Your task to perform on an android device: toggle improve location accuracy Image 0: 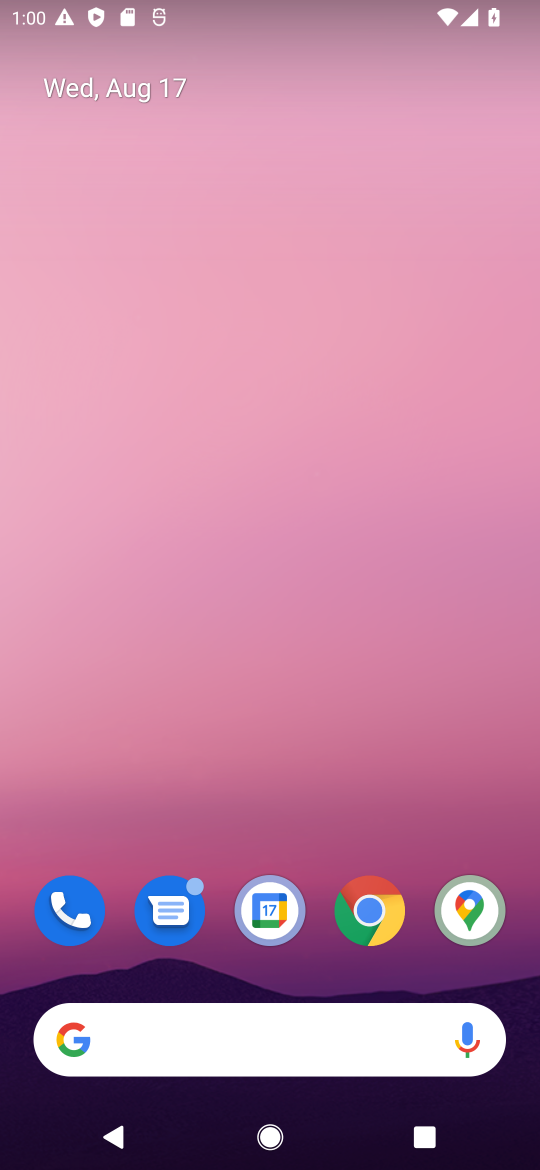
Step 0: drag from (220, 979) to (420, 14)
Your task to perform on an android device: toggle improve location accuracy Image 1: 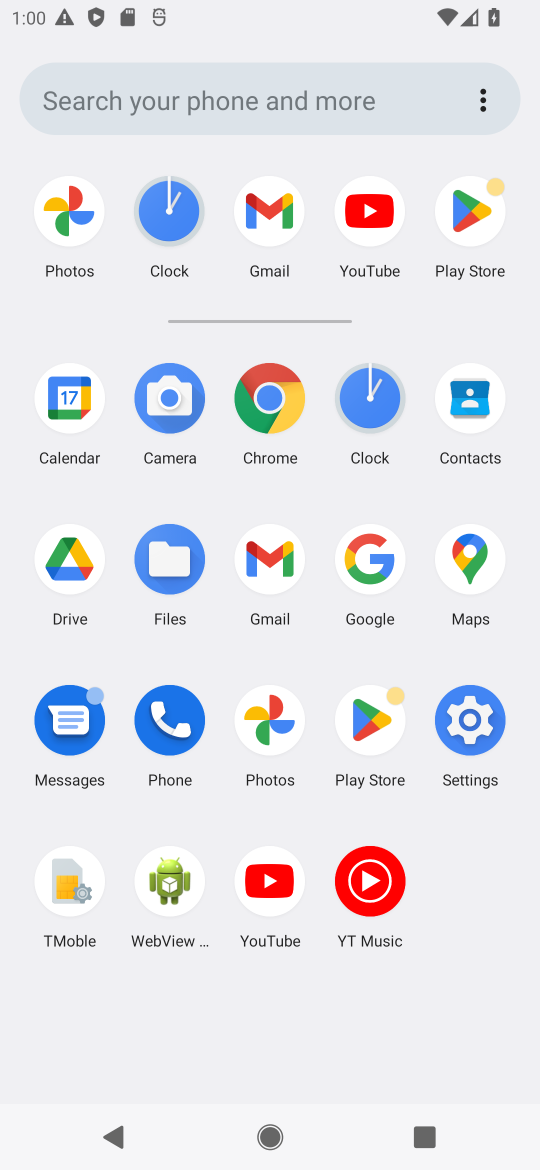
Step 1: click (473, 731)
Your task to perform on an android device: toggle improve location accuracy Image 2: 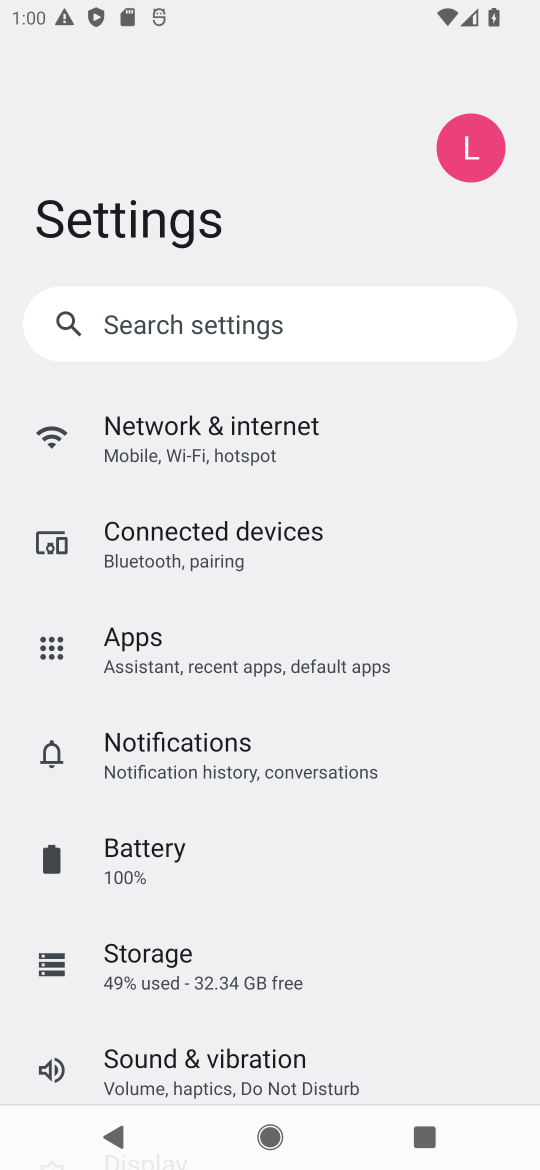
Step 2: drag from (235, 977) to (356, 194)
Your task to perform on an android device: toggle improve location accuracy Image 3: 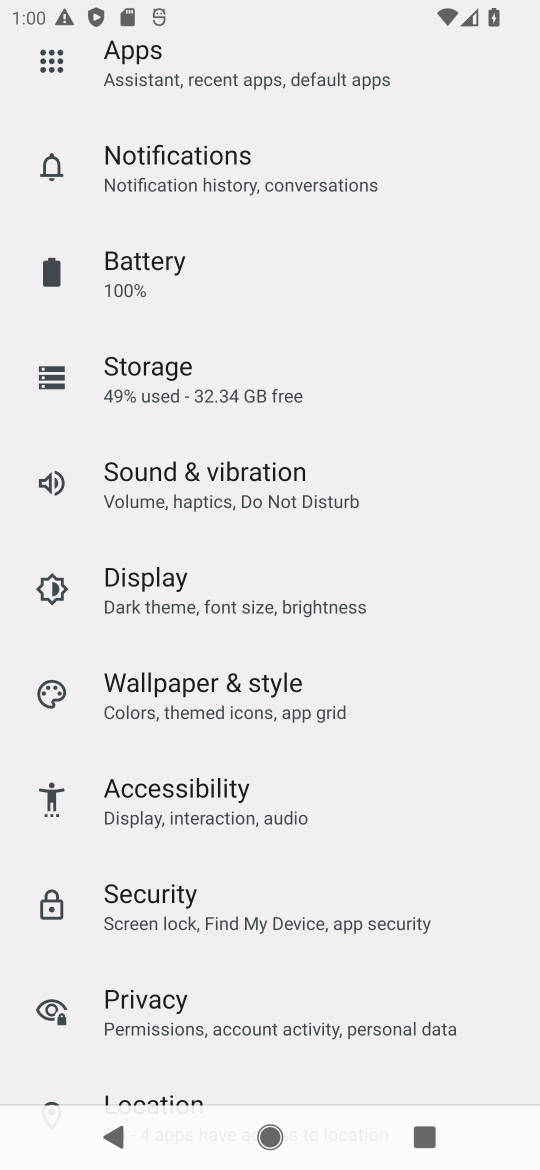
Step 3: drag from (196, 993) to (324, 235)
Your task to perform on an android device: toggle improve location accuracy Image 4: 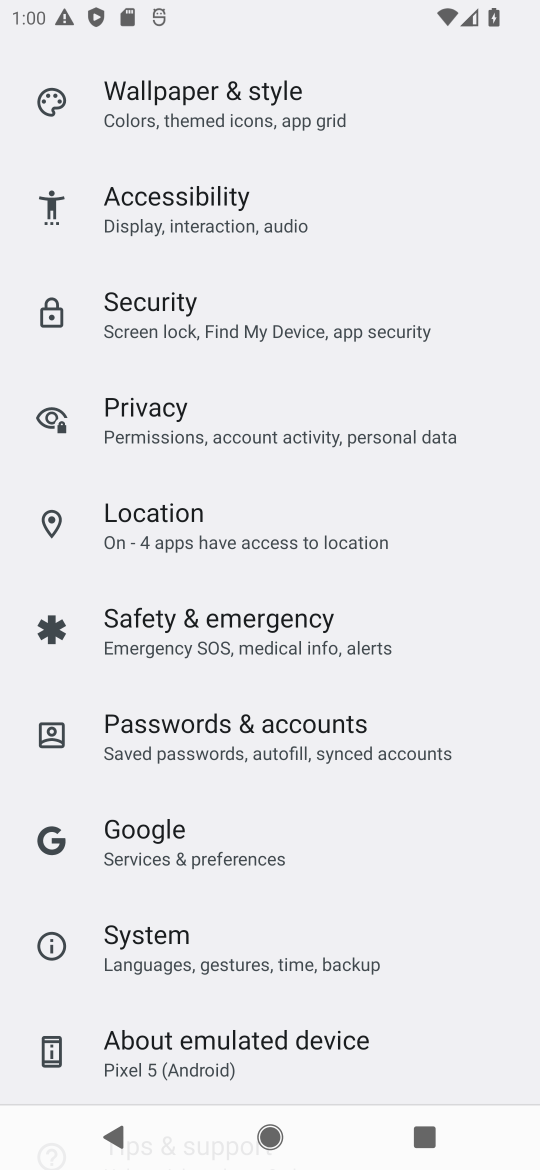
Step 4: click (175, 508)
Your task to perform on an android device: toggle improve location accuracy Image 5: 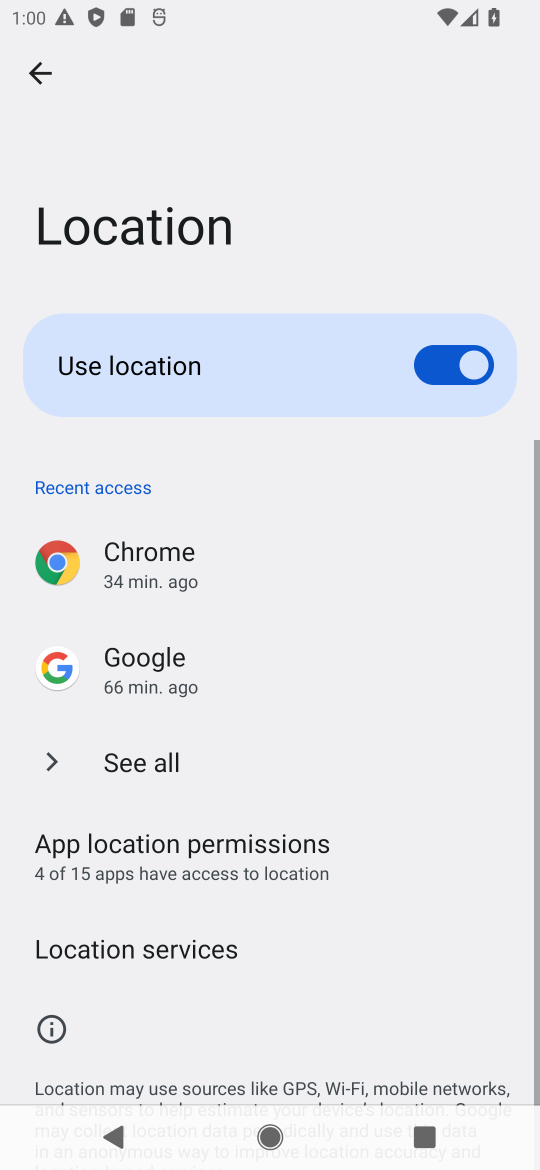
Step 5: click (177, 942)
Your task to perform on an android device: toggle improve location accuracy Image 6: 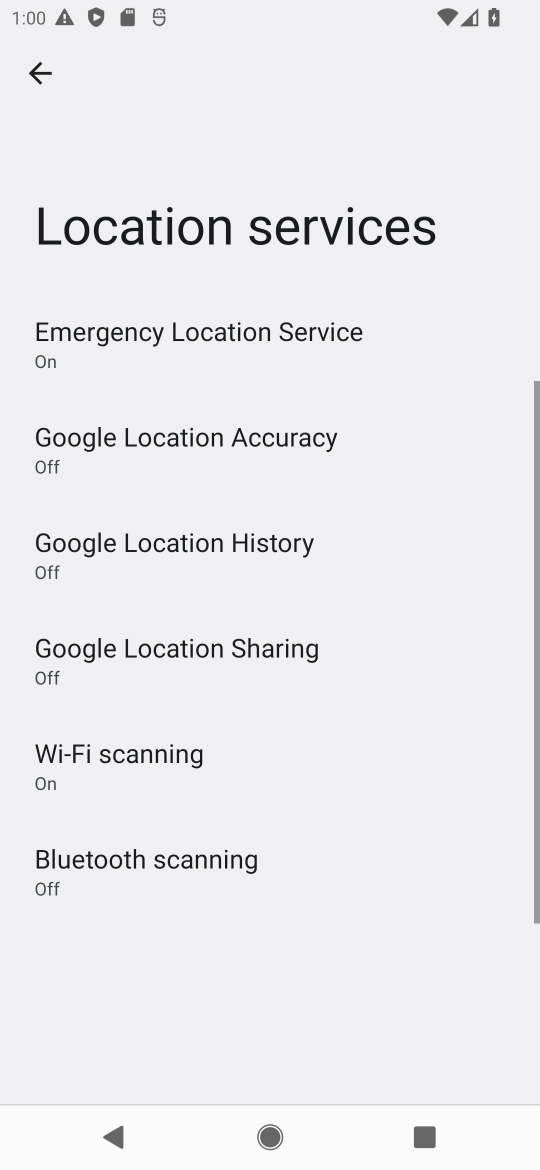
Step 6: click (211, 465)
Your task to perform on an android device: toggle improve location accuracy Image 7: 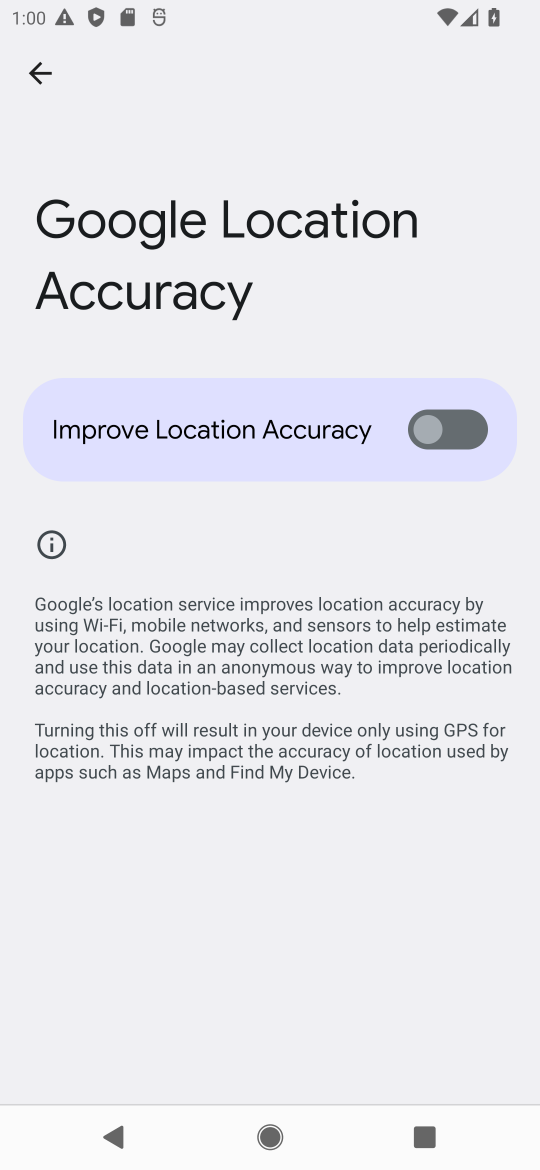
Step 7: click (428, 425)
Your task to perform on an android device: toggle improve location accuracy Image 8: 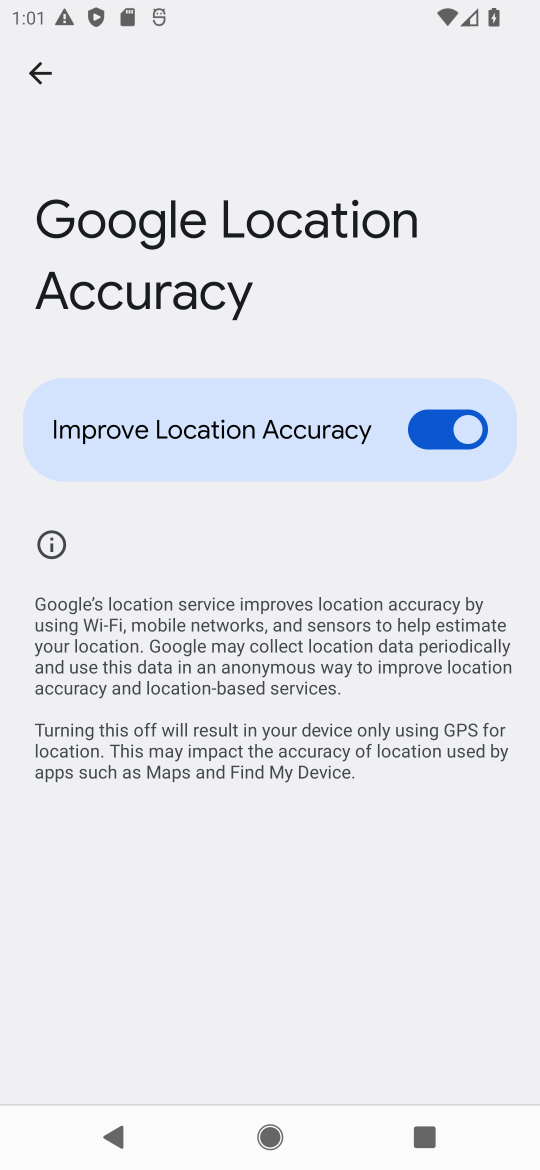
Step 8: task complete